Your task to perform on an android device: Go to wifi settings Image 0: 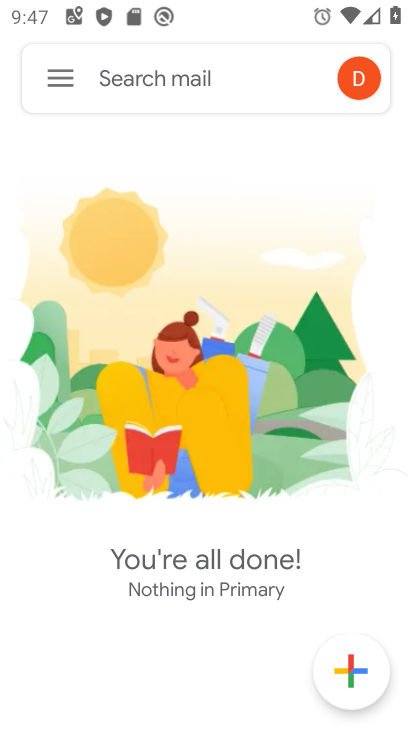
Step 0: press home button
Your task to perform on an android device: Go to wifi settings Image 1: 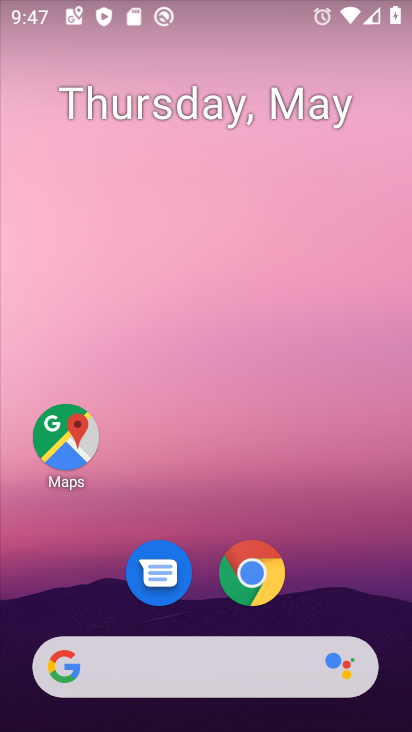
Step 1: drag from (203, 616) to (207, 185)
Your task to perform on an android device: Go to wifi settings Image 2: 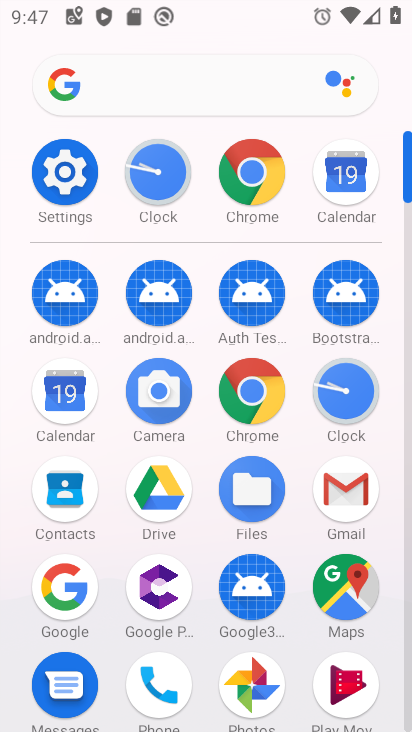
Step 2: click (78, 180)
Your task to perform on an android device: Go to wifi settings Image 3: 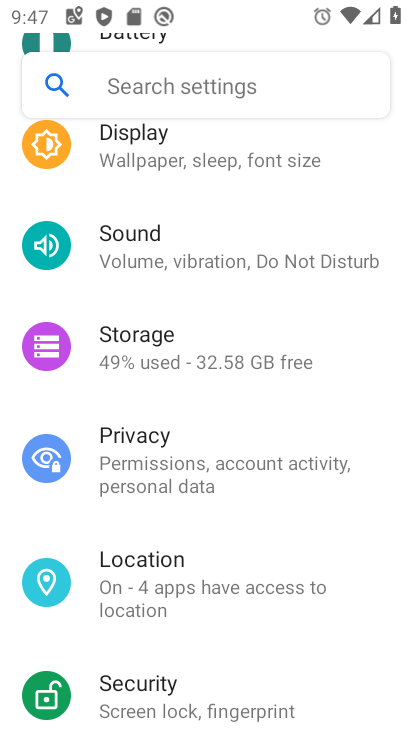
Step 3: drag from (164, 160) to (175, 516)
Your task to perform on an android device: Go to wifi settings Image 4: 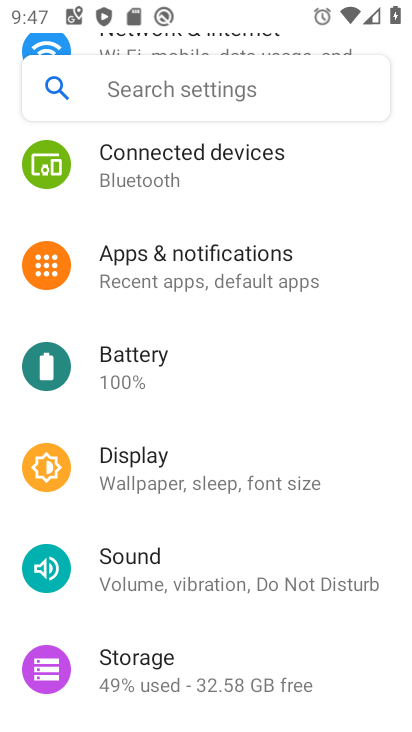
Step 4: drag from (157, 208) to (164, 538)
Your task to perform on an android device: Go to wifi settings Image 5: 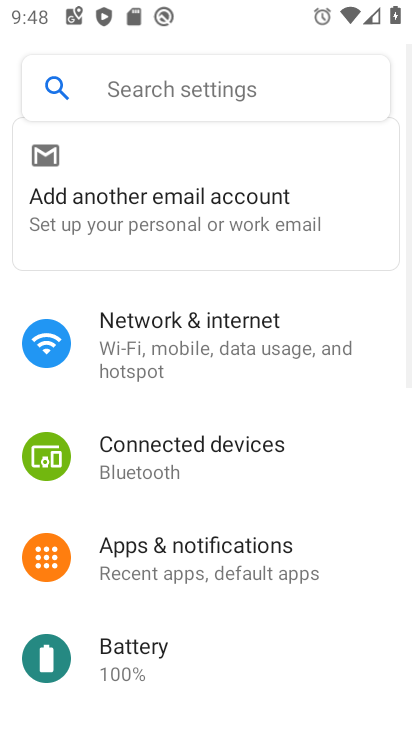
Step 5: drag from (163, 271) to (186, 485)
Your task to perform on an android device: Go to wifi settings Image 6: 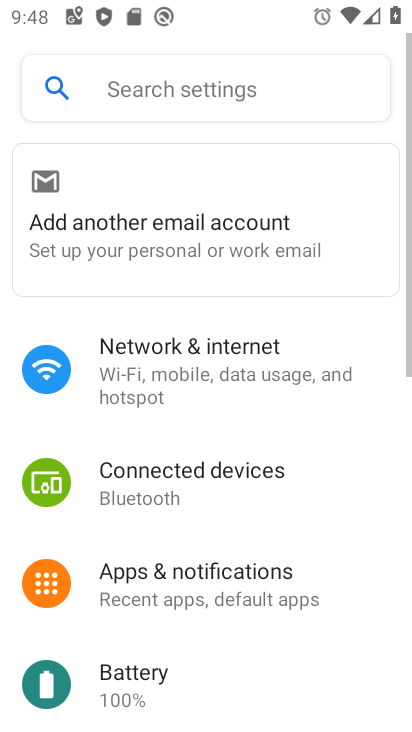
Step 6: click (163, 356)
Your task to perform on an android device: Go to wifi settings Image 7: 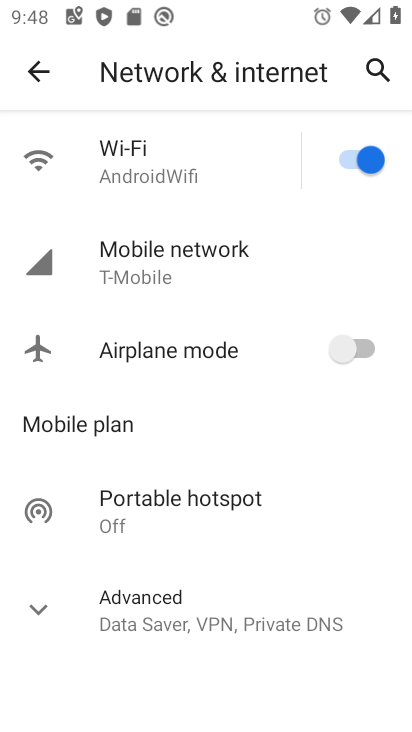
Step 7: click (162, 168)
Your task to perform on an android device: Go to wifi settings Image 8: 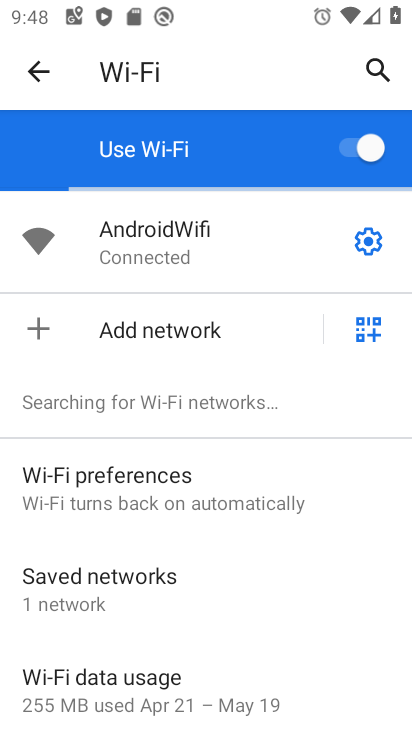
Step 8: task complete